Your task to perform on an android device: set the timer Image 0: 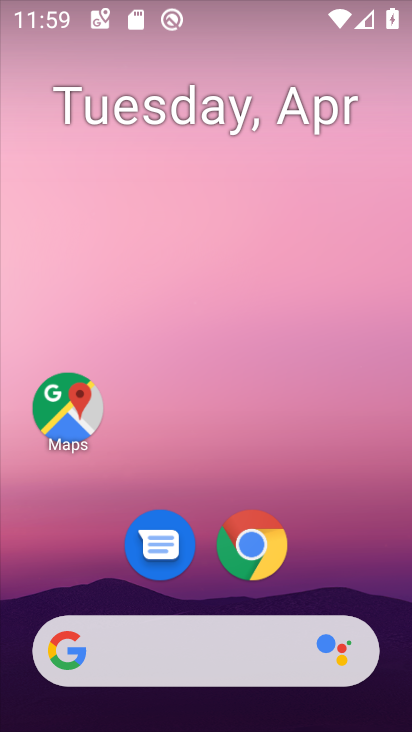
Step 0: drag from (354, 466) to (292, 22)
Your task to perform on an android device: set the timer Image 1: 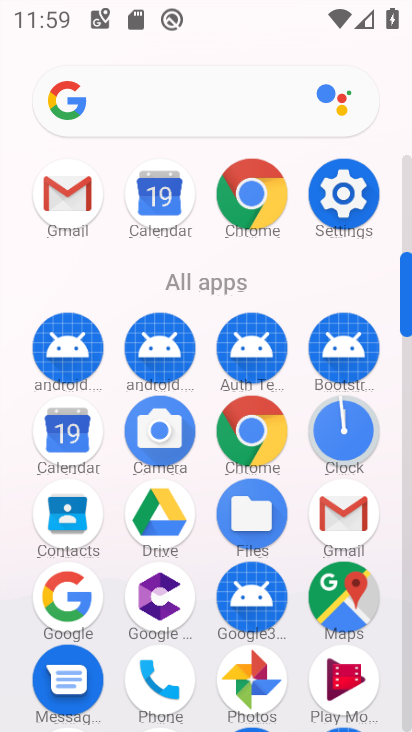
Step 1: click (346, 420)
Your task to perform on an android device: set the timer Image 2: 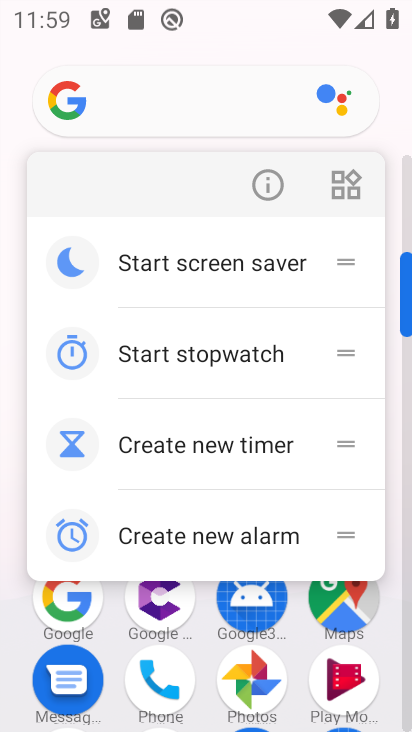
Step 2: press back button
Your task to perform on an android device: set the timer Image 3: 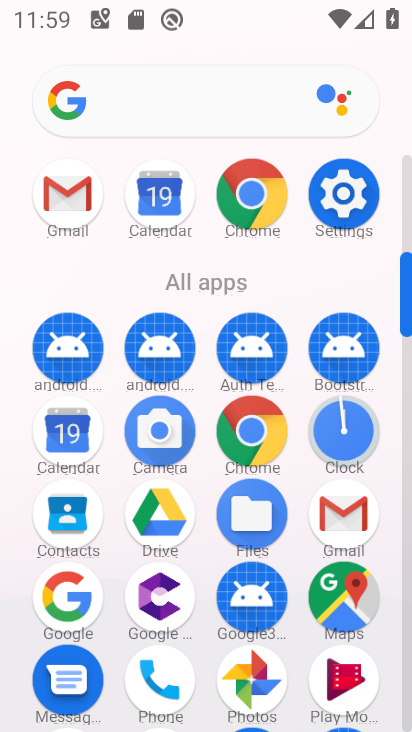
Step 3: click (358, 434)
Your task to perform on an android device: set the timer Image 4: 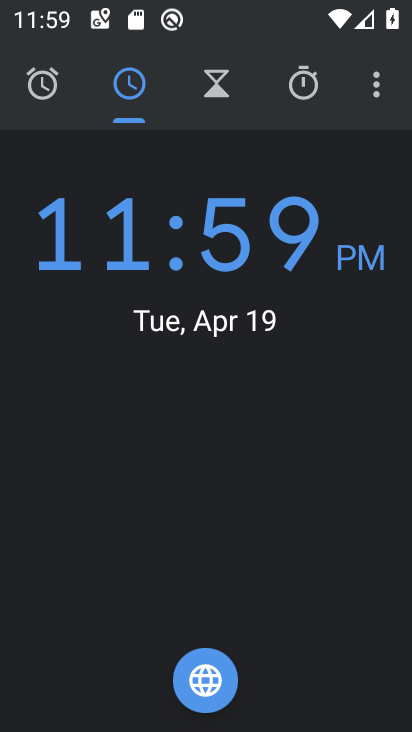
Step 4: click (235, 84)
Your task to perform on an android device: set the timer Image 5: 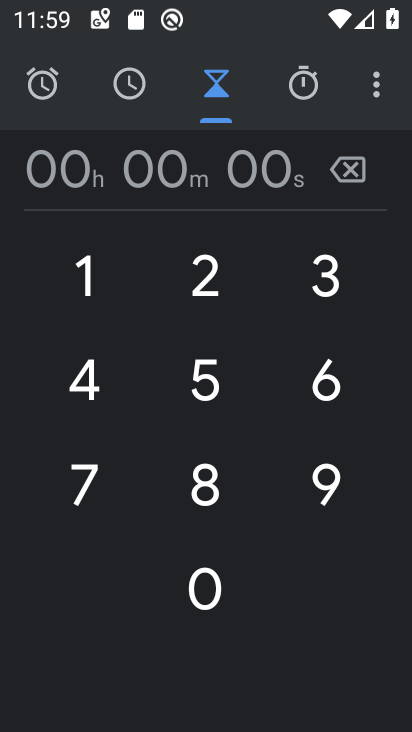
Step 5: drag from (81, 306) to (85, 394)
Your task to perform on an android device: set the timer Image 6: 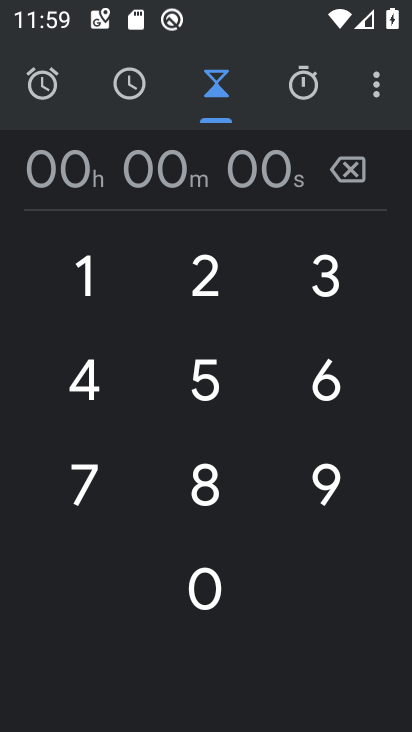
Step 6: click (83, 280)
Your task to perform on an android device: set the timer Image 7: 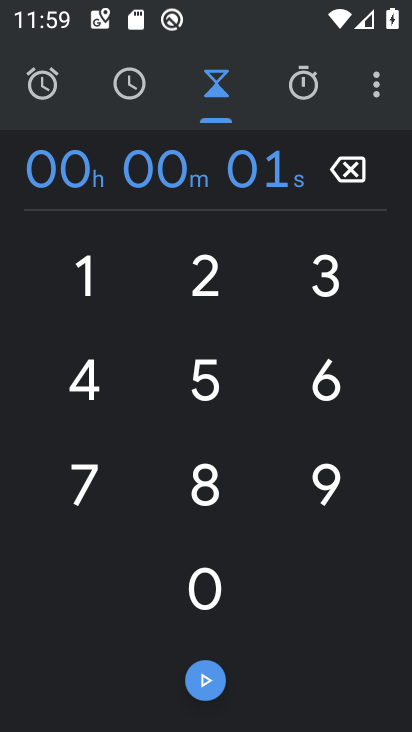
Step 7: click (95, 374)
Your task to perform on an android device: set the timer Image 8: 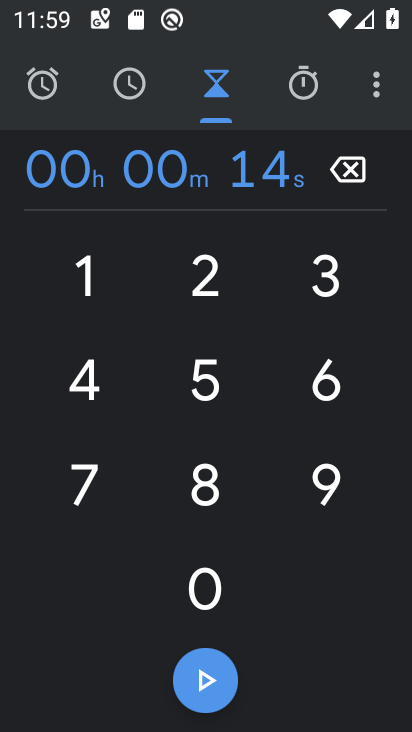
Step 8: click (90, 274)
Your task to perform on an android device: set the timer Image 9: 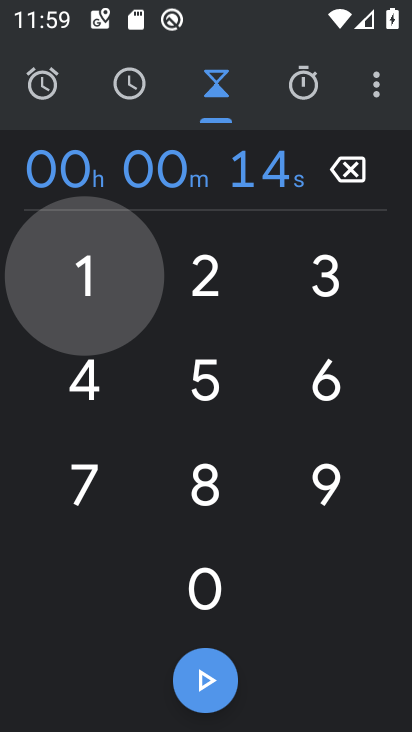
Step 9: click (89, 403)
Your task to perform on an android device: set the timer Image 10: 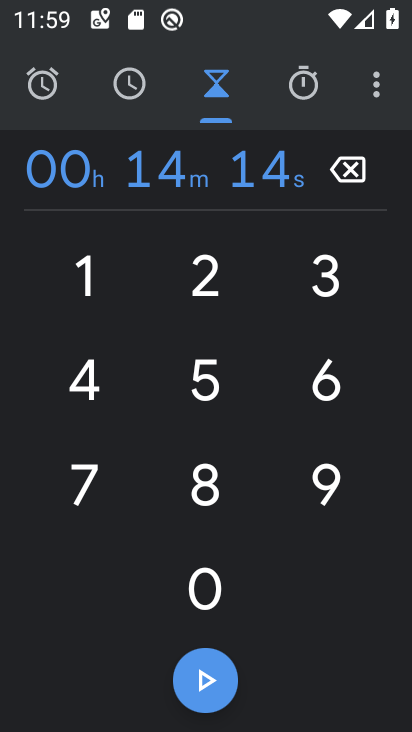
Step 10: click (72, 283)
Your task to perform on an android device: set the timer Image 11: 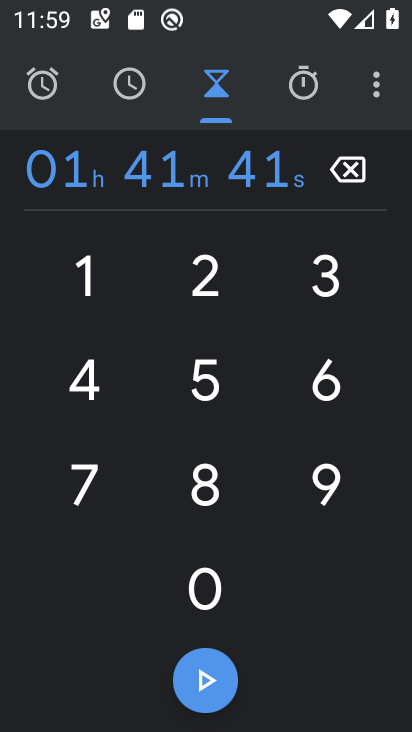
Step 11: click (106, 399)
Your task to perform on an android device: set the timer Image 12: 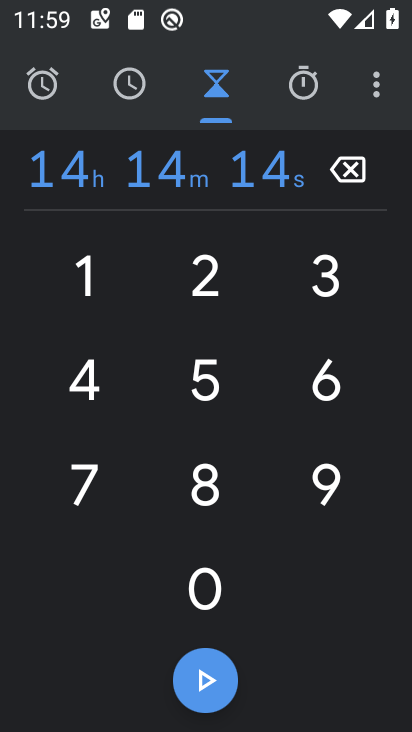
Step 12: click (208, 687)
Your task to perform on an android device: set the timer Image 13: 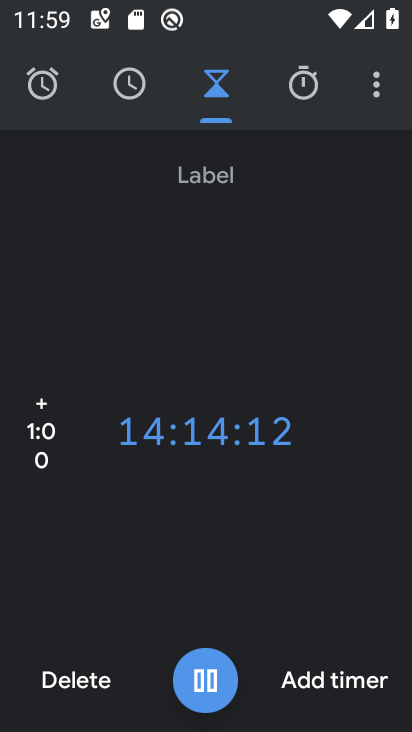
Step 13: task complete